Your task to perform on an android device: Show me the alarms in the clock app Image 0: 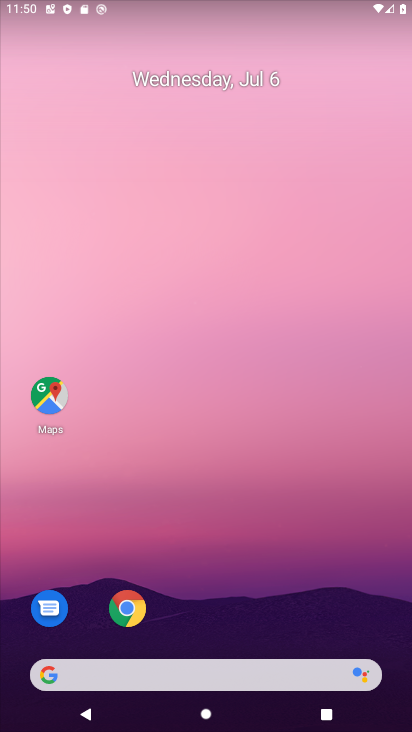
Step 0: drag from (138, 647) to (75, 169)
Your task to perform on an android device: Show me the alarms in the clock app Image 1: 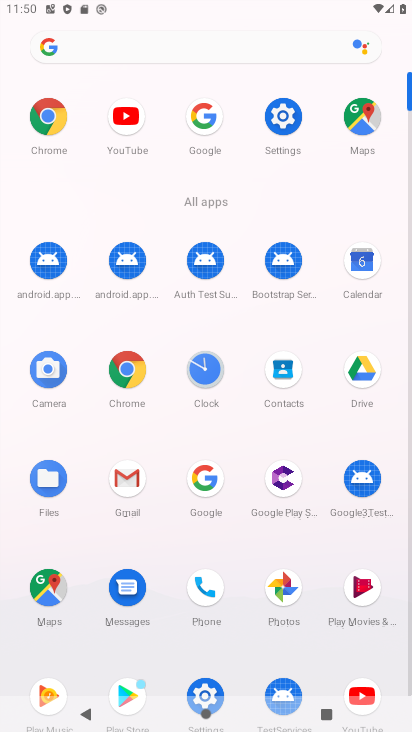
Step 1: click (196, 373)
Your task to perform on an android device: Show me the alarms in the clock app Image 2: 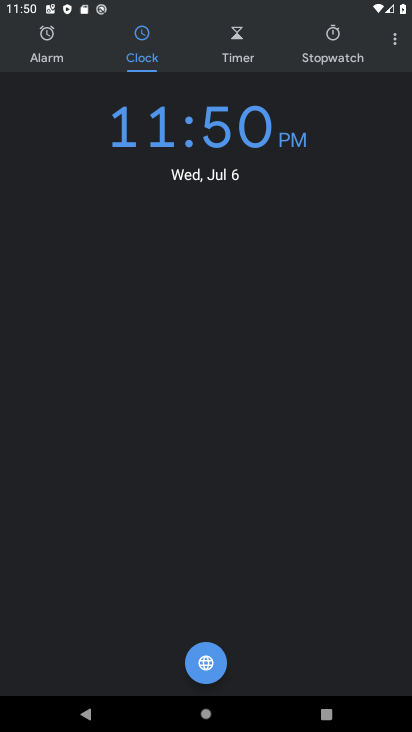
Step 2: click (52, 33)
Your task to perform on an android device: Show me the alarms in the clock app Image 3: 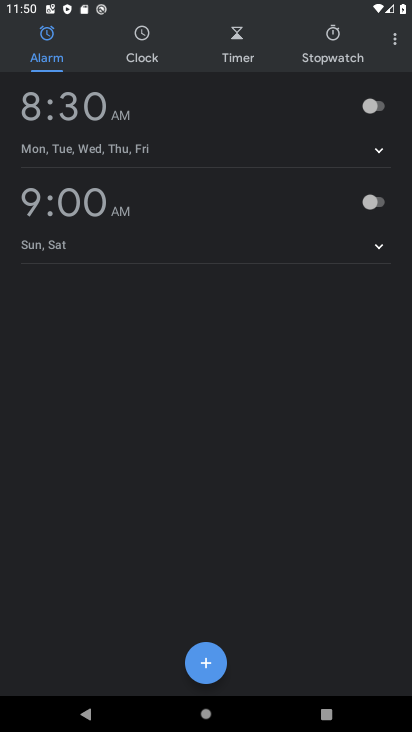
Step 3: task complete